Your task to perform on an android device: toggle javascript in the chrome app Image 0: 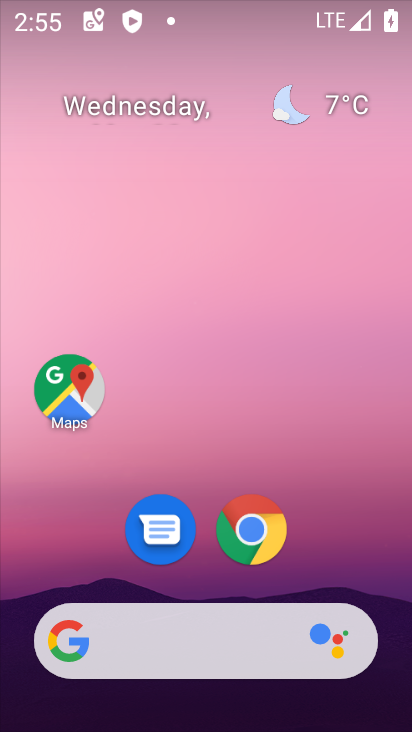
Step 0: drag from (365, 499) to (309, 94)
Your task to perform on an android device: toggle javascript in the chrome app Image 1: 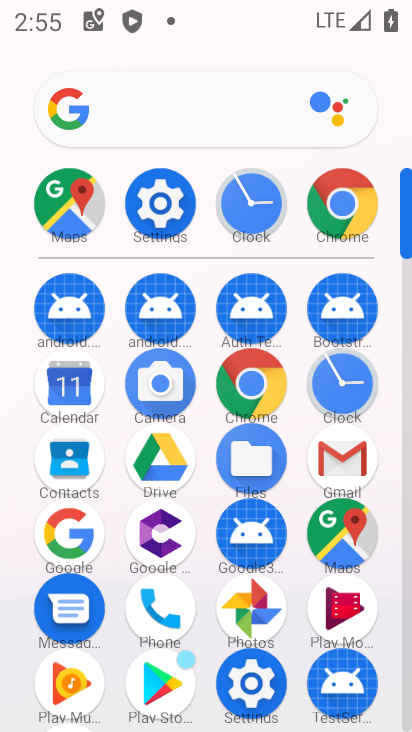
Step 1: click (326, 209)
Your task to perform on an android device: toggle javascript in the chrome app Image 2: 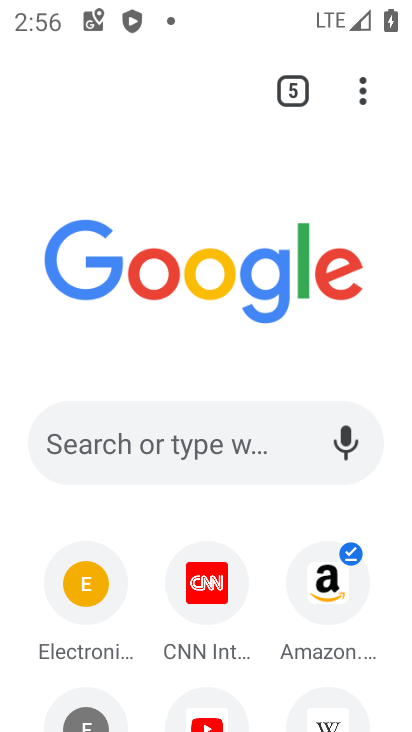
Step 2: drag from (367, 90) to (183, 579)
Your task to perform on an android device: toggle javascript in the chrome app Image 3: 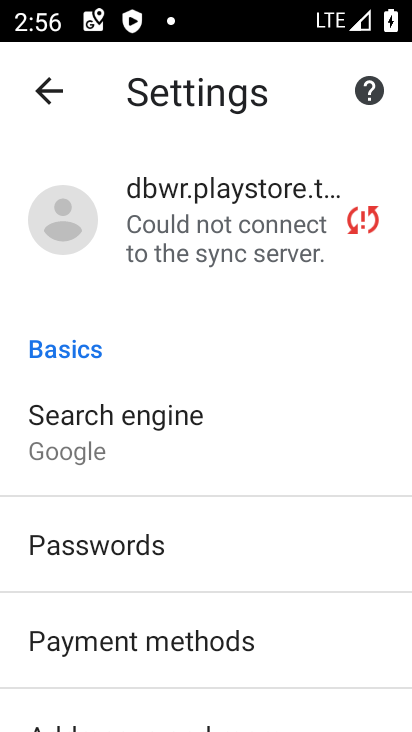
Step 3: drag from (184, 576) to (140, 182)
Your task to perform on an android device: toggle javascript in the chrome app Image 4: 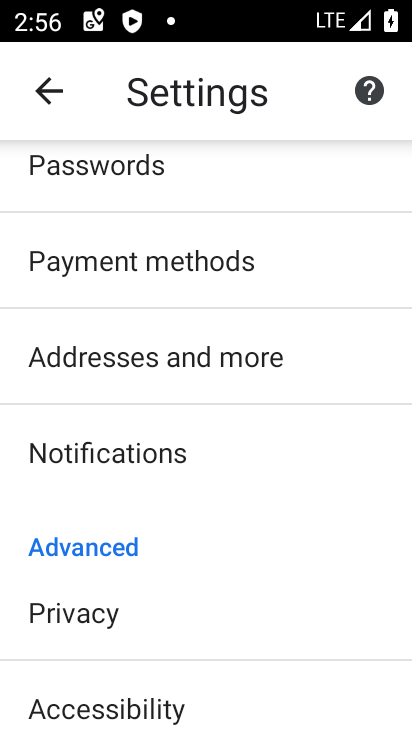
Step 4: drag from (187, 617) to (174, 210)
Your task to perform on an android device: toggle javascript in the chrome app Image 5: 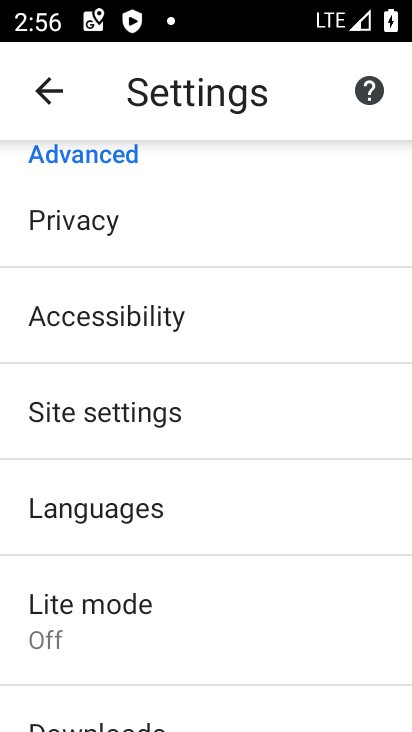
Step 5: click (108, 422)
Your task to perform on an android device: toggle javascript in the chrome app Image 6: 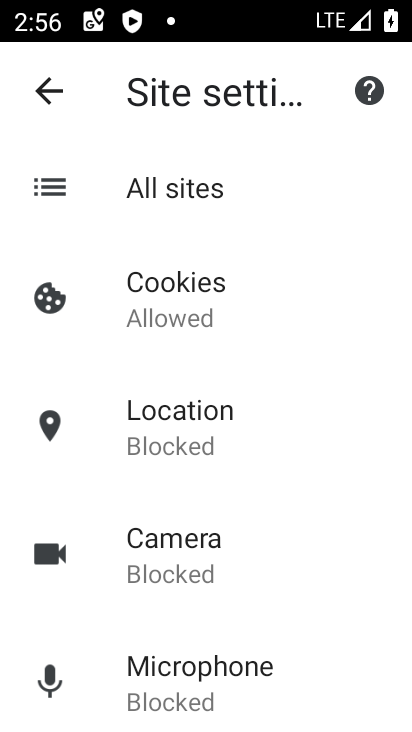
Step 6: drag from (170, 616) to (169, 280)
Your task to perform on an android device: toggle javascript in the chrome app Image 7: 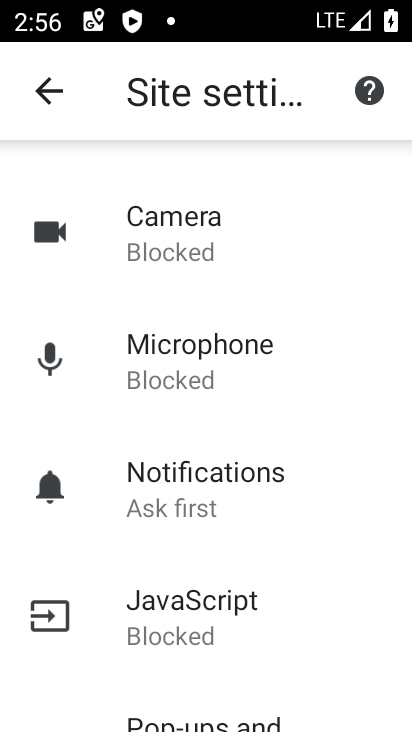
Step 7: drag from (225, 594) to (212, 333)
Your task to perform on an android device: toggle javascript in the chrome app Image 8: 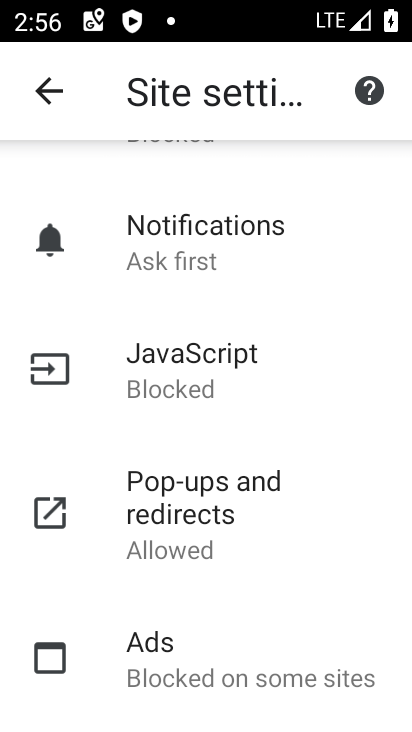
Step 8: click (180, 380)
Your task to perform on an android device: toggle javascript in the chrome app Image 9: 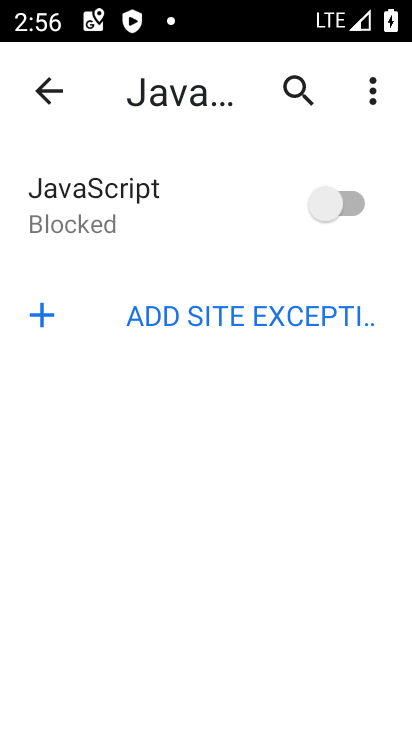
Step 9: click (329, 200)
Your task to perform on an android device: toggle javascript in the chrome app Image 10: 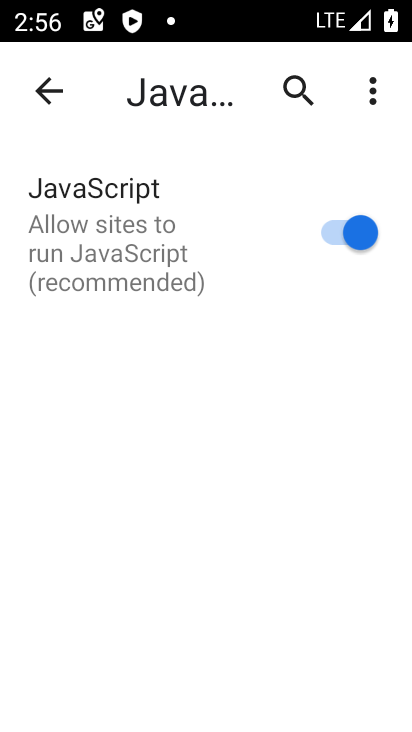
Step 10: task complete